Your task to perform on an android device: Go to CNN.com Image 0: 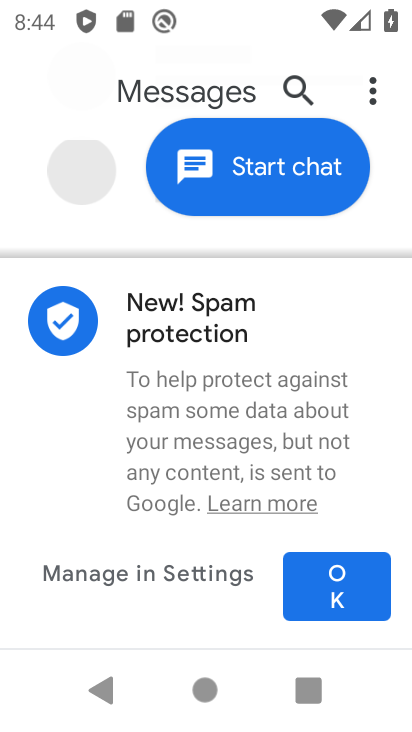
Step 0: press home button
Your task to perform on an android device: Go to CNN.com Image 1: 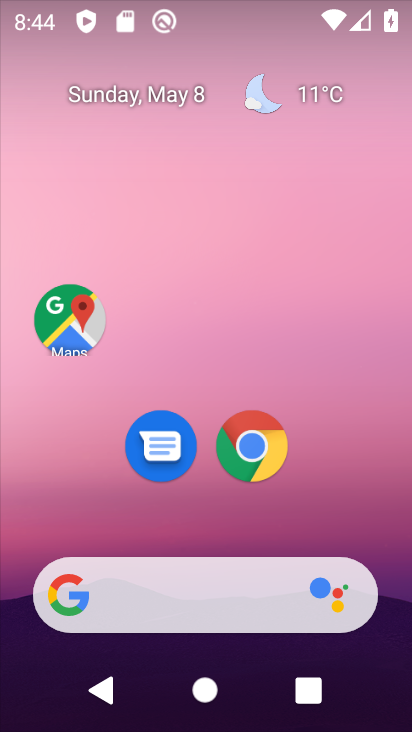
Step 1: drag from (290, 484) to (251, 94)
Your task to perform on an android device: Go to CNN.com Image 2: 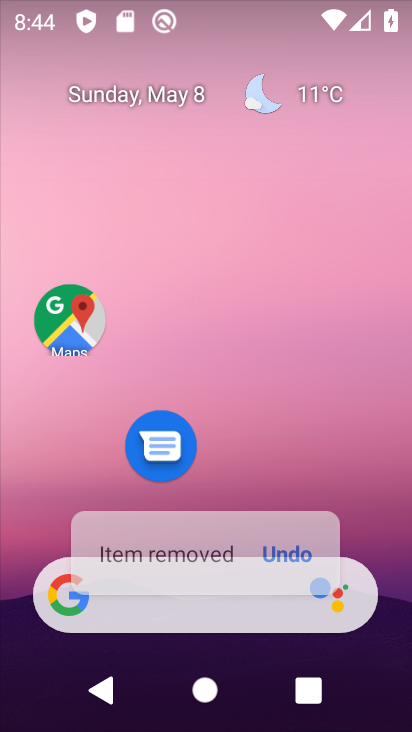
Step 2: click (283, 544)
Your task to perform on an android device: Go to CNN.com Image 3: 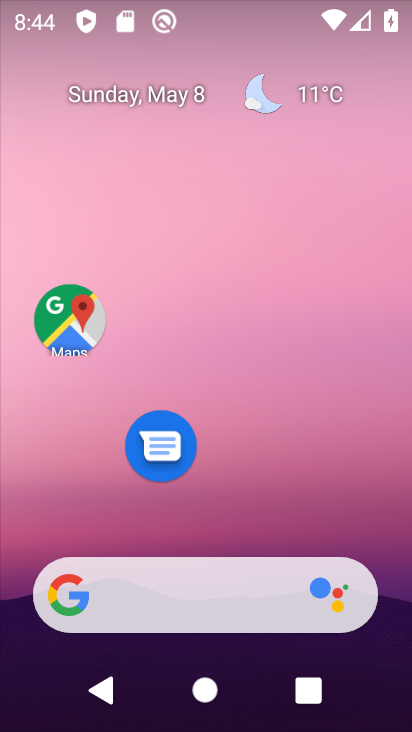
Step 3: drag from (271, 492) to (389, 23)
Your task to perform on an android device: Go to CNN.com Image 4: 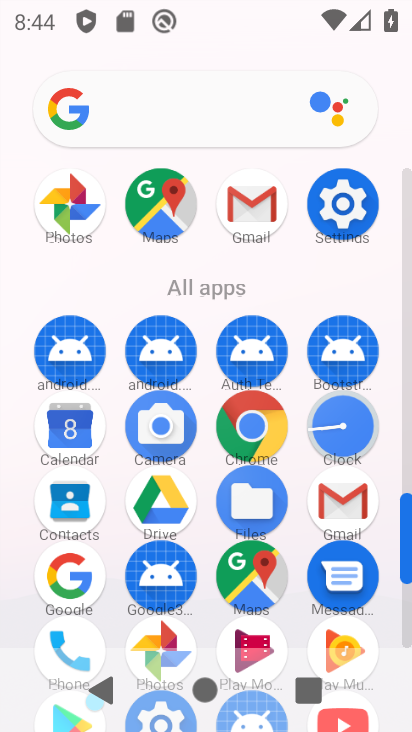
Step 4: click (404, 639)
Your task to perform on an android device: Go to CNN.com Image 5: 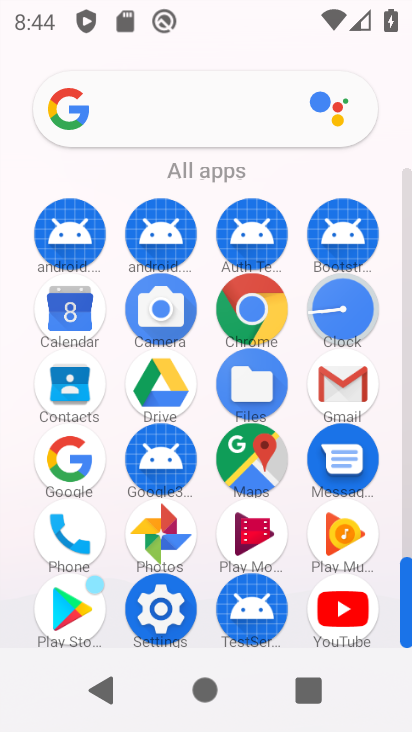
Step 5: click (252, 300)
Your task to perform on an android device: Go to CNN.com Image 6: 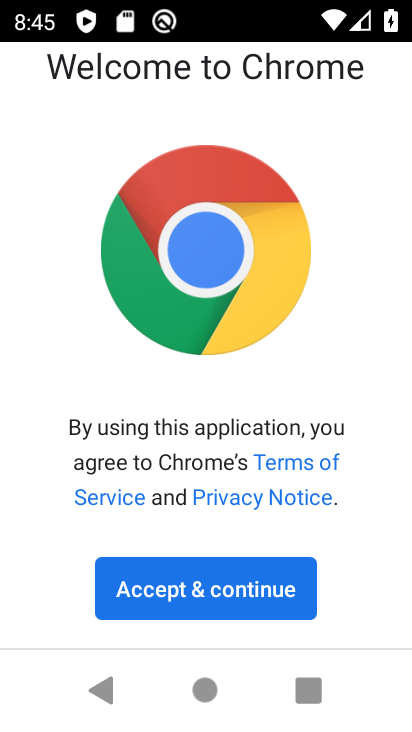
Step 6: click (287, 582)
Your task to perform on an android device: Go to CNN.com Image 7: 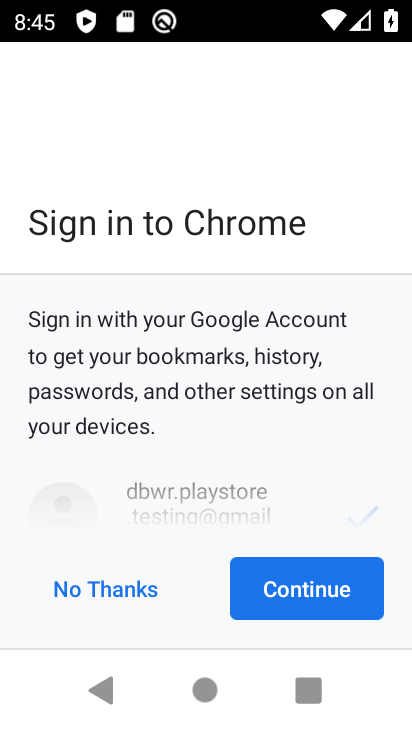
Step 7: click (320, 595)
Your task to perform on an android device: Go to CNN.com Image 8: 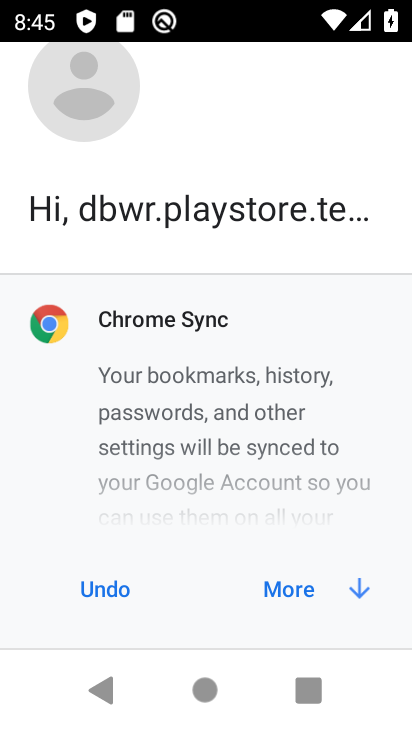
Step 8: click (307, 595)
Your task to perform on an android device: Go to CNN.com Image 9: 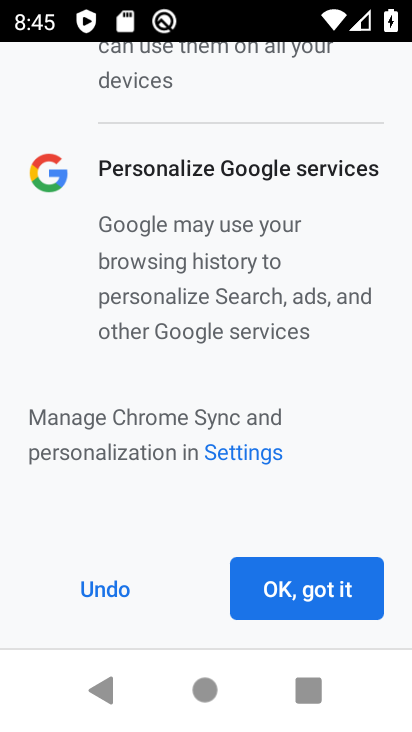
Step 9: click (310, 585)
Your task to perform on an android device: Go to CNN.com Image 10: 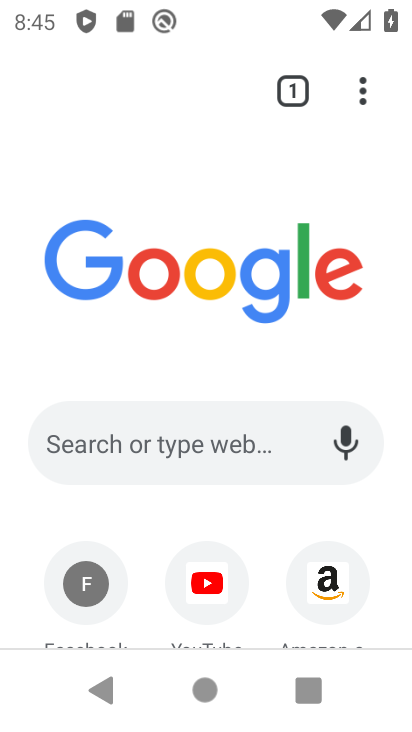
Step 10: click (197, 448)
Your task to perform on an android device: Go to CNN.com Image 11: 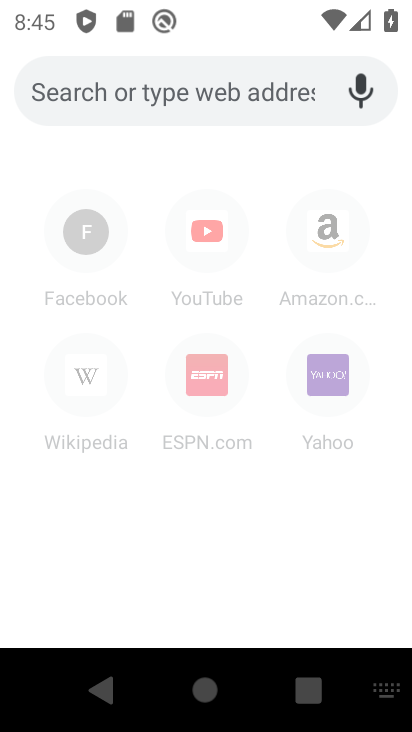
Step 11: type "CNN.com"
Your task to perform on an android device: Go to CNN.com Image 12: 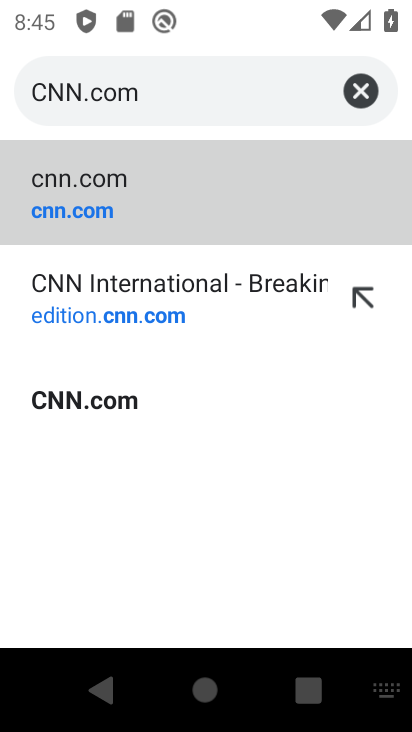
Step 12: click (174, 156)
Your task to perform on an android device: Go to CNN.com Image 13: 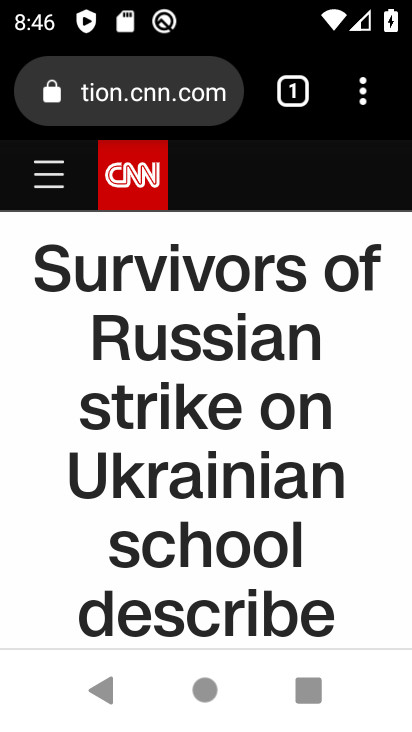
Step 13: task complete